Your task to perform on an android device: Open calendar and show me the fourth week of next month Image 0: 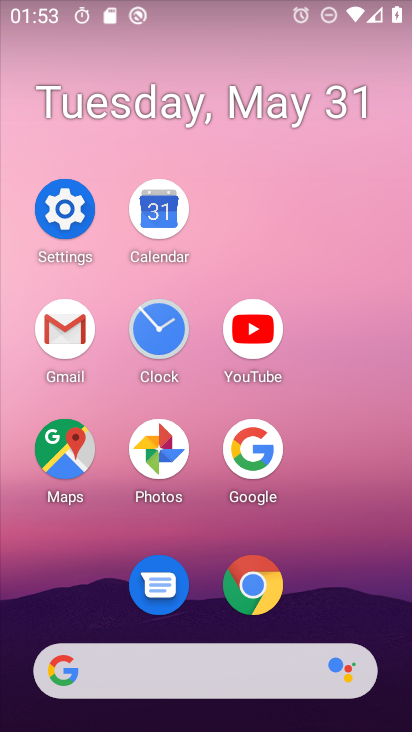
Step 0: click (162, 221)
Your task to perform on an android device: Open calendar and show me the fourth week of next month Image 1: 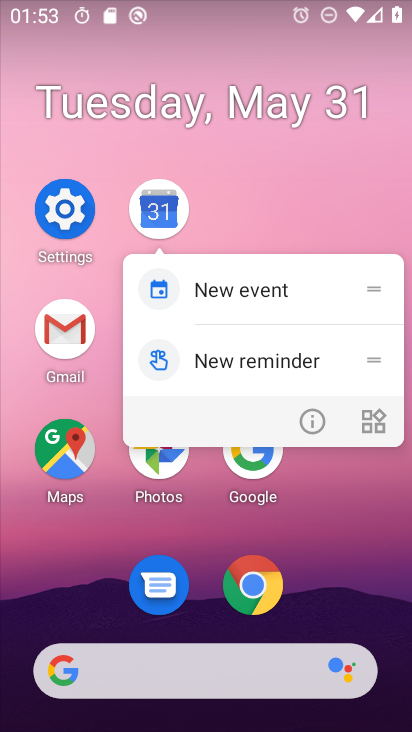
Step 1: click (173, 210)
Your task to perform on an android device: Open calendar and show me the fourth week of next month Image 2: 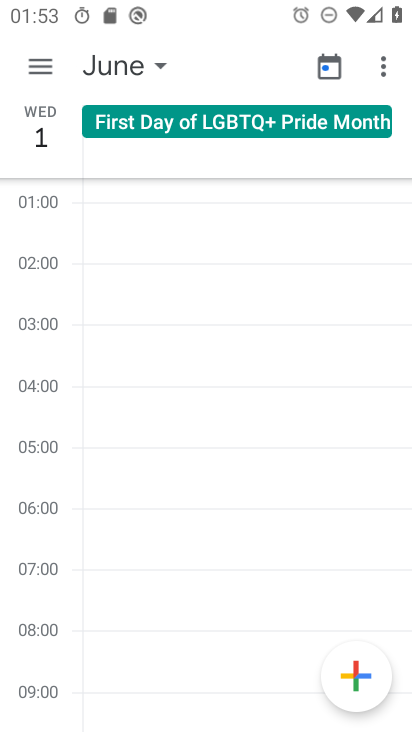
Step 2: click (35, 89)
Your task to perform on an android device: Open calendar and show me the fourth week of next month Image 3: 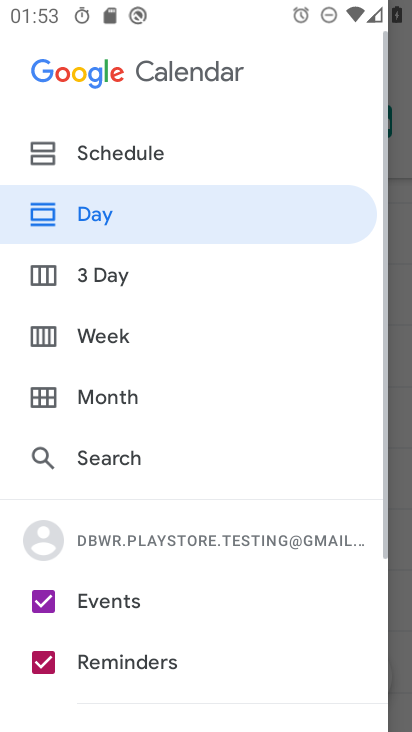
Step 3: click (113, 341)
Your task to perform on an android device: Open calendar and show me the fourth week of next month Image 4: 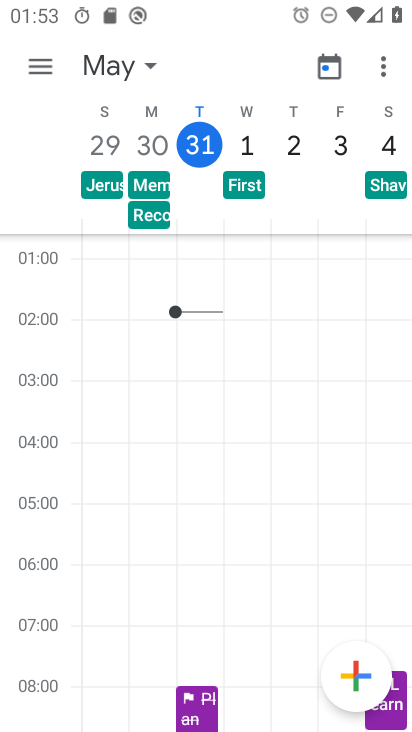
Step 4: task complete